Your task to perform on an android device: Go to Android settings Image 0: 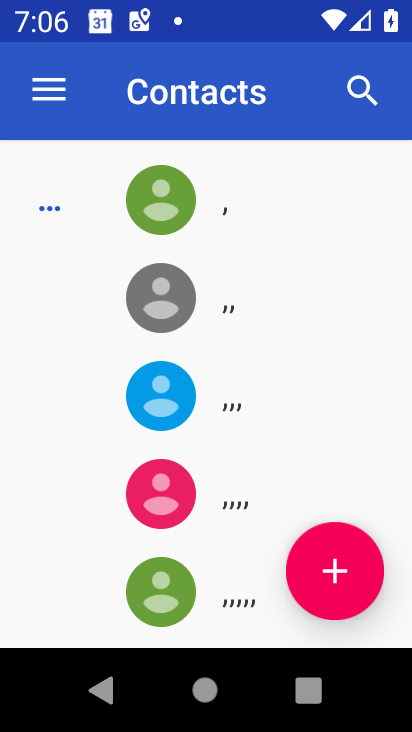
Step 0: press home button
Your task to perform on an android device: Go to Android settings Image 1: 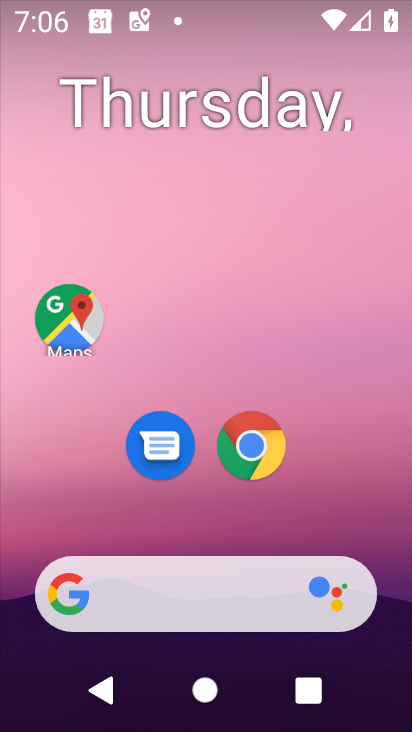
Step 1: drag from (403, 631) to (264, 88)
Your task to perform on an android device: Go to Android settings Image 2: 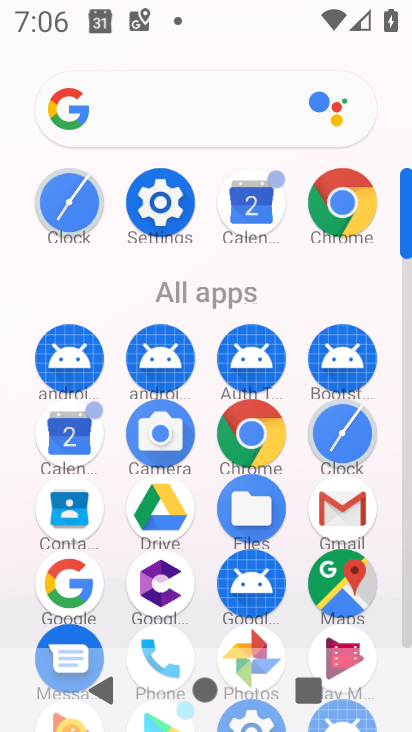
Step 2: click (173, 199)
Your task to perform on an android device: Go to Android settings Image 3: 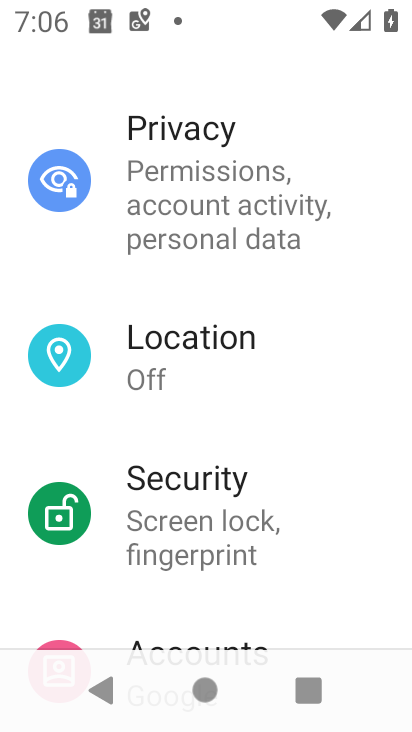
Step 3: drag from (103, 583) to (106, 66)
Your task to perform on an android device: Go to Android settings Image 4: 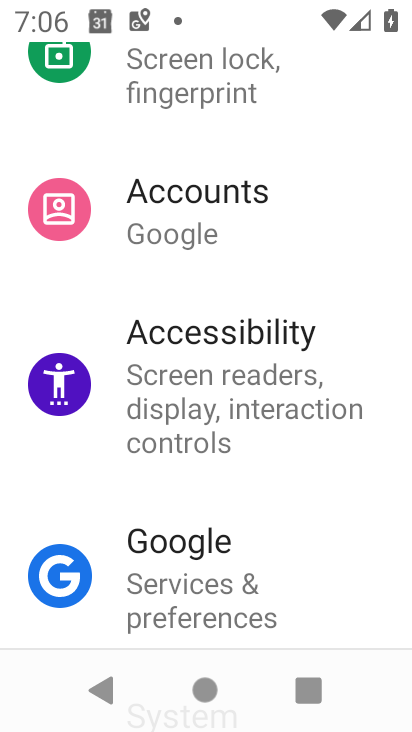
Step 4: drag from (66, 542) to (406, 398)
Your task to perform on an android device: Go to Android settings Image 5: 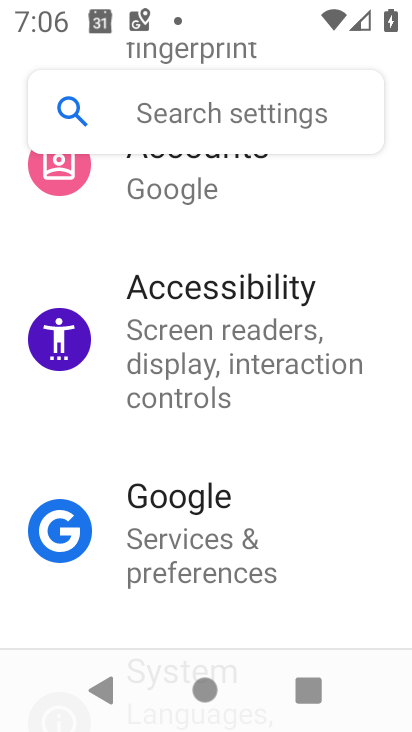
Step 5: drag from (107, 579) to (154, 40)
Your task to perform on an android device: Go to Android settings Image 6: 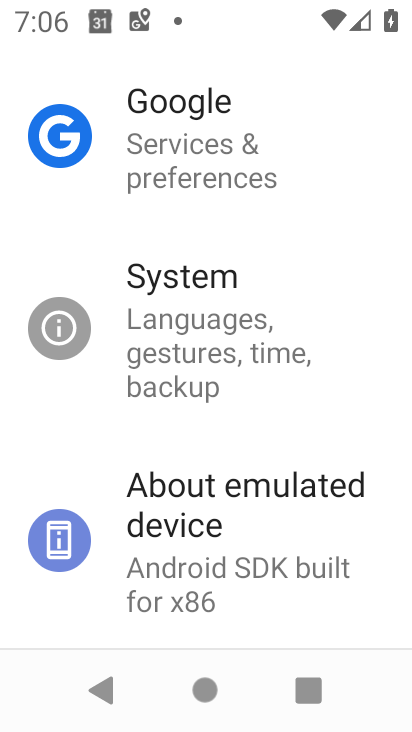
Step 6: drag from (144, 490) to (149, 71)
Your task to perform on an android device: Go to Android settings Image 7: 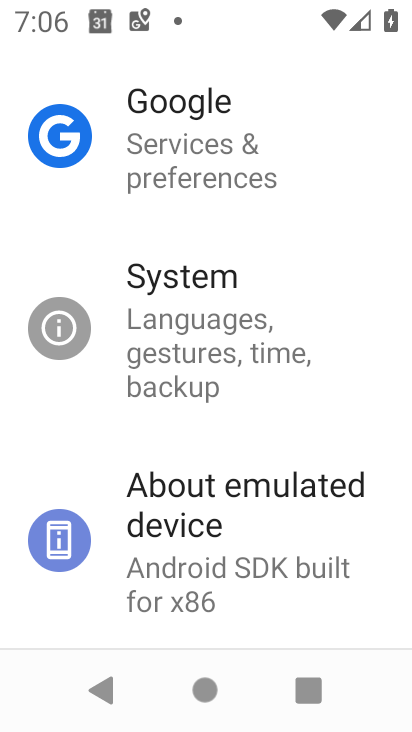
Step 7: click (108, 537)
Your task to perform on an android device: Go to Android settings Image 8: 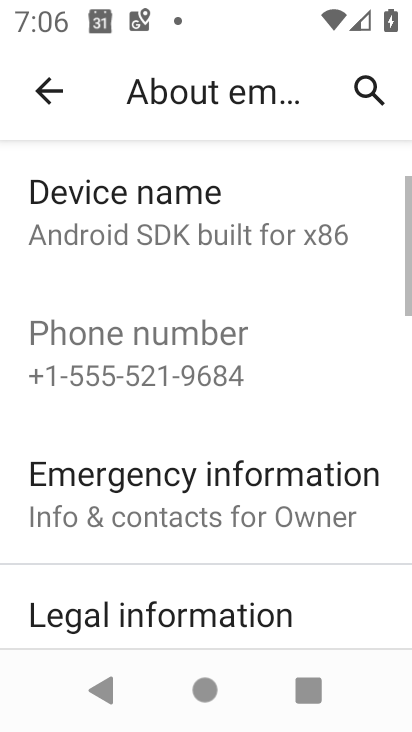
Step 8: drag from (88, 579) to (163, 141)
Your task to perform on an android device: Go to Android settings Image 9: 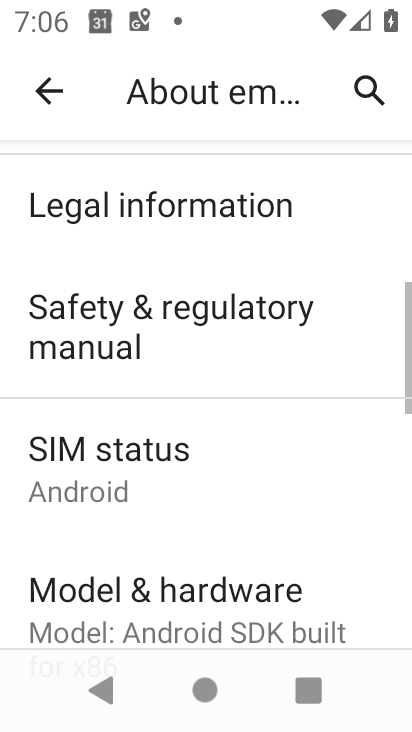
Step 9: drag from (113, 562) to (175, 111)
Your task to perform on an android device: Go to Android settings Image 10: 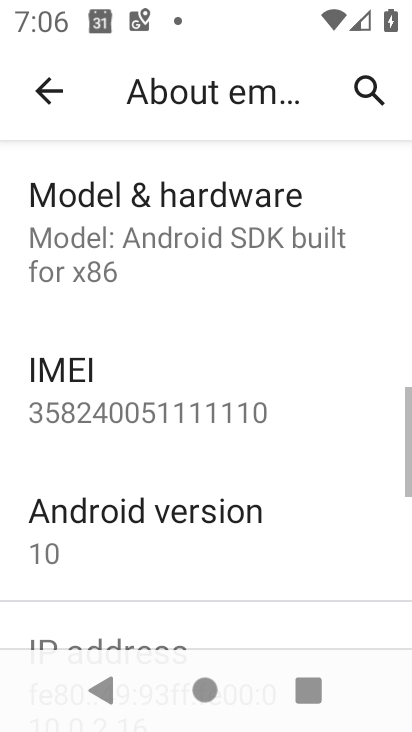
Step 10: click (129, 518)
Your task to perform on an android device: Go to Android settings Image 11: 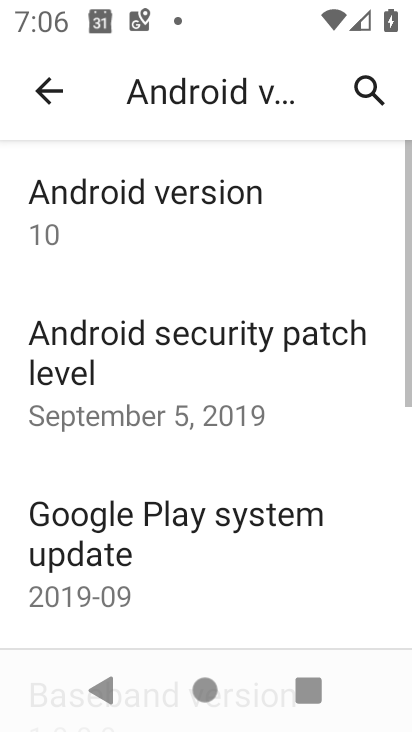
Step 11: task complete